Your task to perform on an android device: What's the weather going to be this weekend? Image 0: 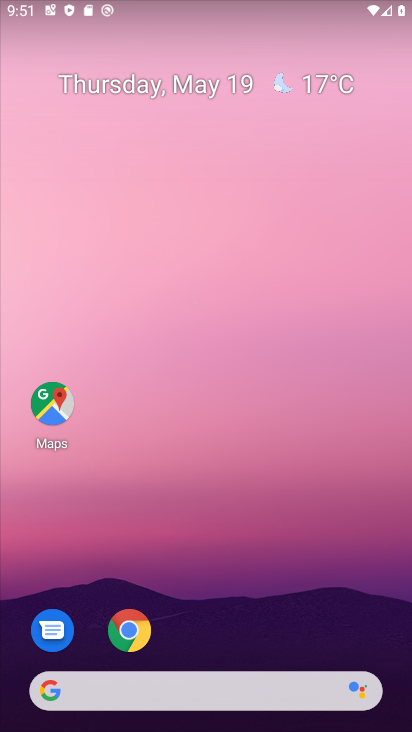
Step 0: press home button
Your task to perform on an android device: What's the weather going to be this weekend? Image 1: 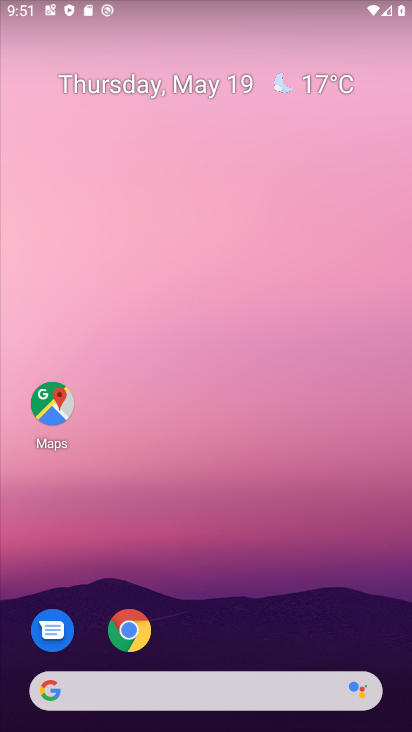
Step 1: click (170, 688)
Your task to perform on an android device: What's the weather going to be this weekend? Image 2: 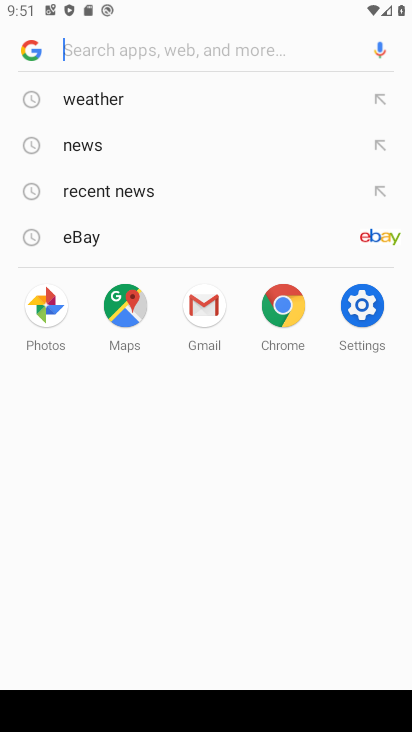
Step 2: click (85, 96)
Your task to perform on an android device: What's the weather going to be this weekend? Image 3: 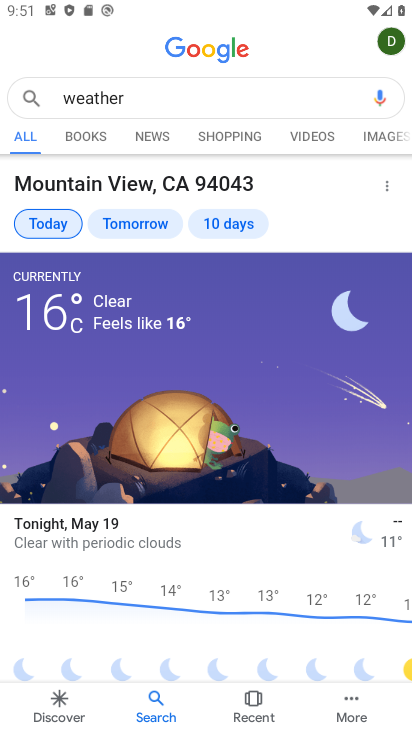
Step 3: task complete